Your task to perform on an android device: turn on priority inbox in the gmail app Image 0: 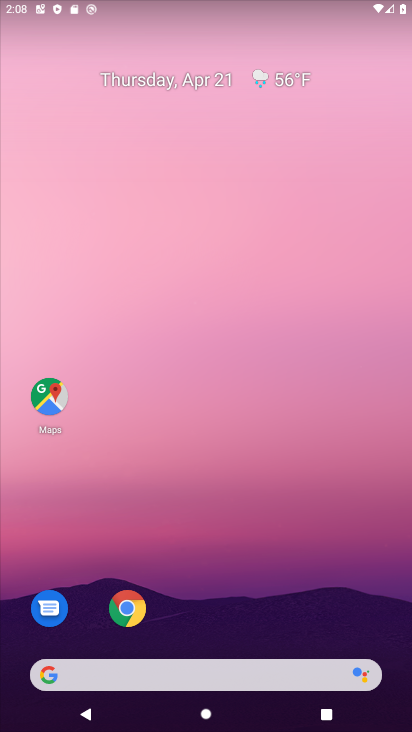
Step 0: drag from (309, 569) to (294, 90)
Your task to perform on an android device: turn on priority inbox in the gmail app Image 1: 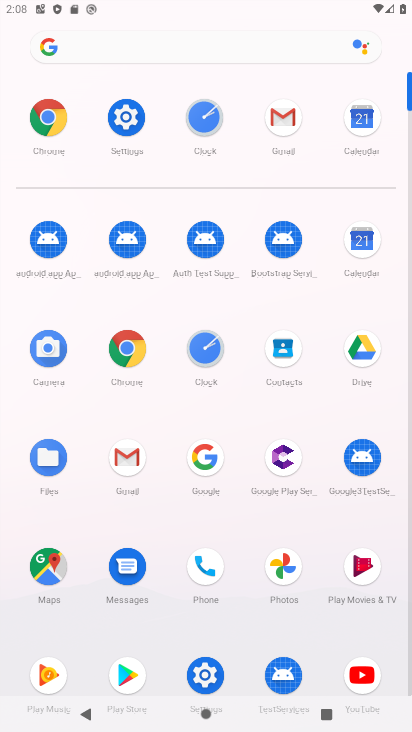
Step 1: click (291, 116)
Your task to perform on an android device: turn on priority inbox in the gmail app Image 2: 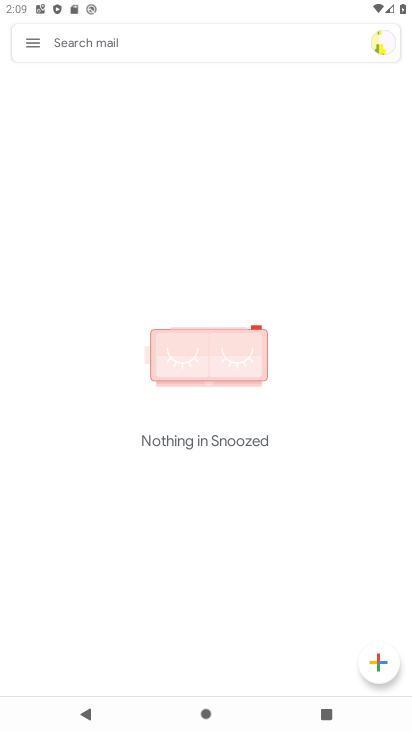
Step 2: click (36, 41)
Your task to perform on an android device: turn on priority inbox in the gmail app Image 3: 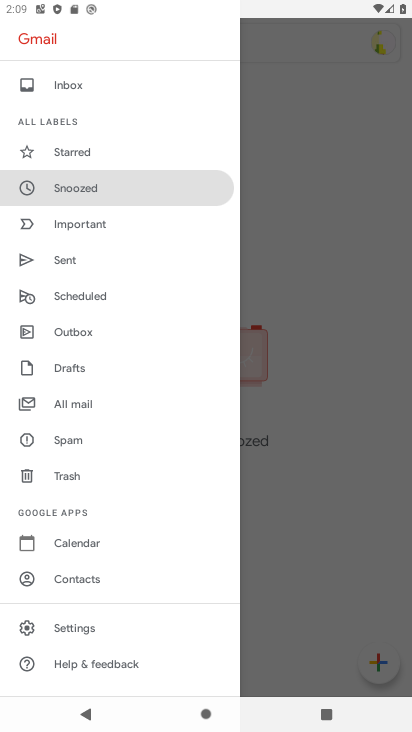
Step 3: click (86, 626)
Your task to perform on an android device: turn on priority inbox in the gmail app Image 4: 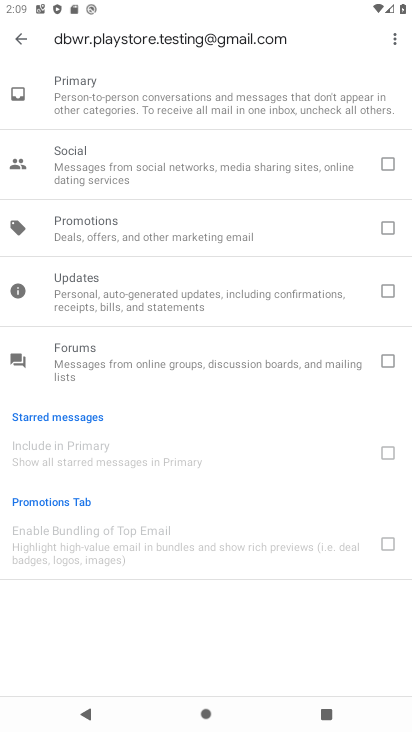
Step 4: click (18, 31)
Your task to perform on an android device: turn on priority inbox in the gmail app Image 5: 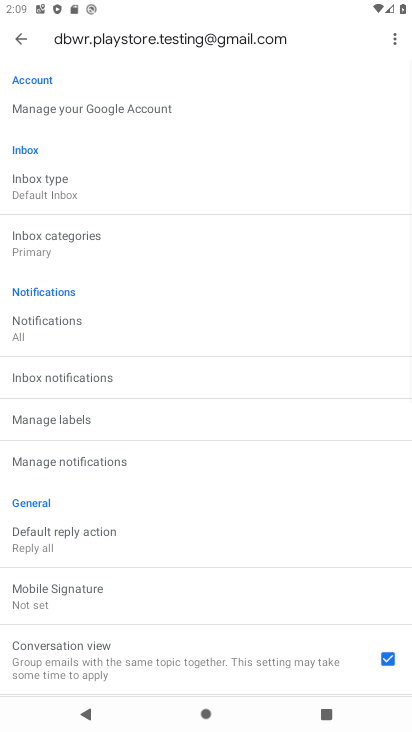
Step 5: click (65, 177)
Your task to perform on an android device: turn on priority inbox in the gmail app Image 6: 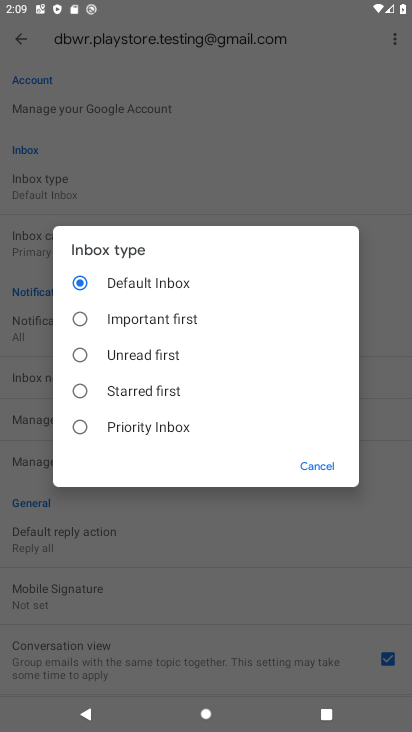
Step 6: click (73, 428)
Your task to perform on an android device: turn on priority inbox in the gmail app Image 7: 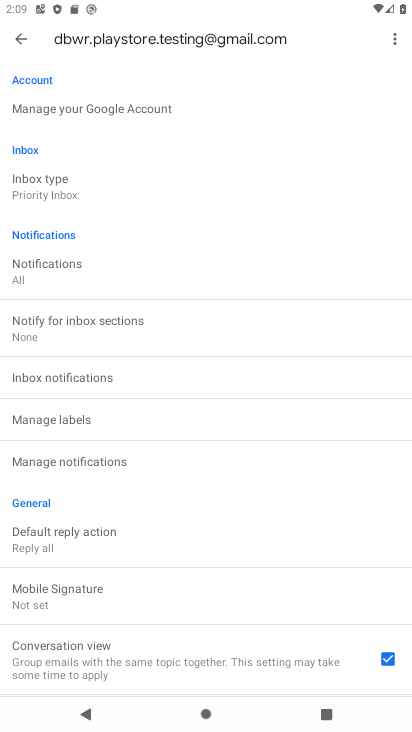
Step 7: task complete